Your task to perform on an android device: turn off smart reply in the gmail app Image 0: 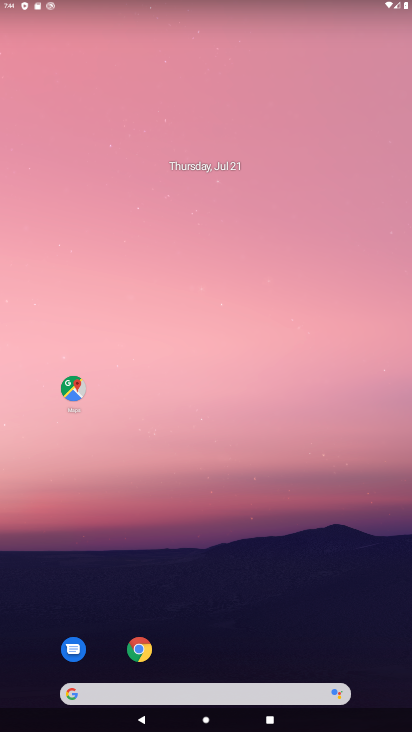
Step 0: drag from (334, 660) to (271, 8)
Your task to perform on an android device: turn off smart reply in the gmail app Image 1: 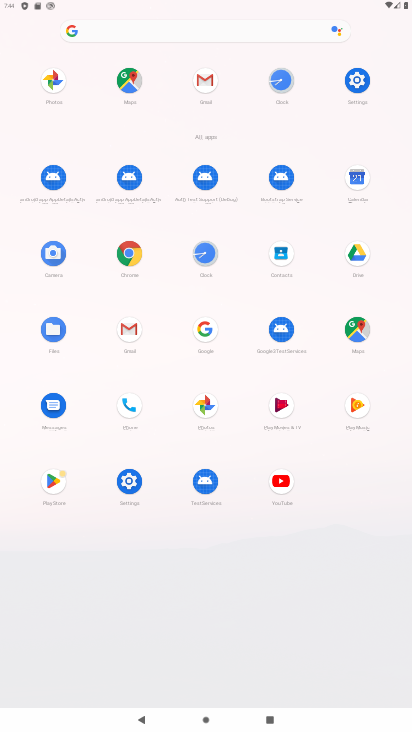
Step 1: click (211, 89)
Your task to perform on an android device: turn off smart reply in the gmail app Image 2: 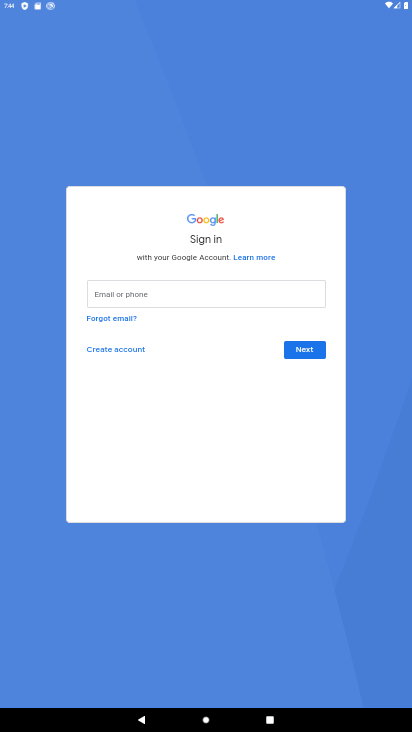
Step 2: task complete